Your task to perform on an android device: Turn on the flashlight Image 0: 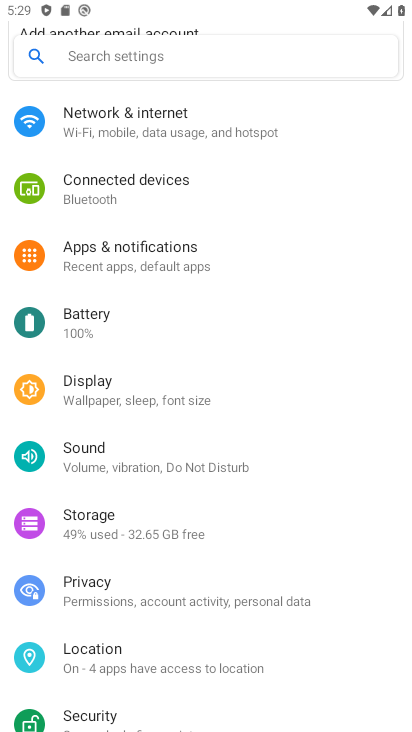
Step 0: drag from (185, 3) to (225, 728)
Your task to perform on an android device: Turn on the flashlight Image 1: 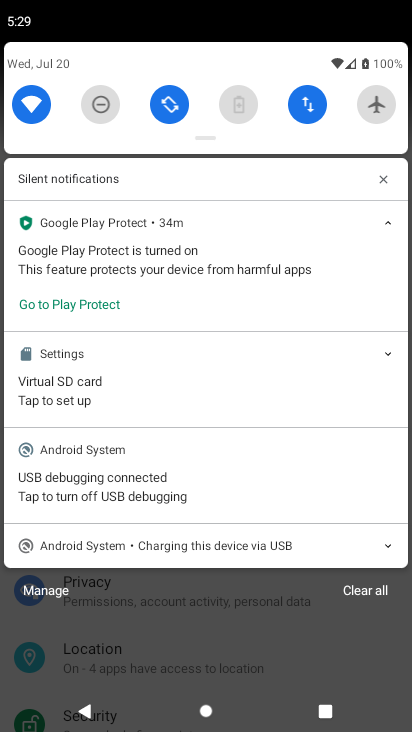
Step 1: task complete